Your task to perform on an android device: move a message to another label in the gmail app Image 0: 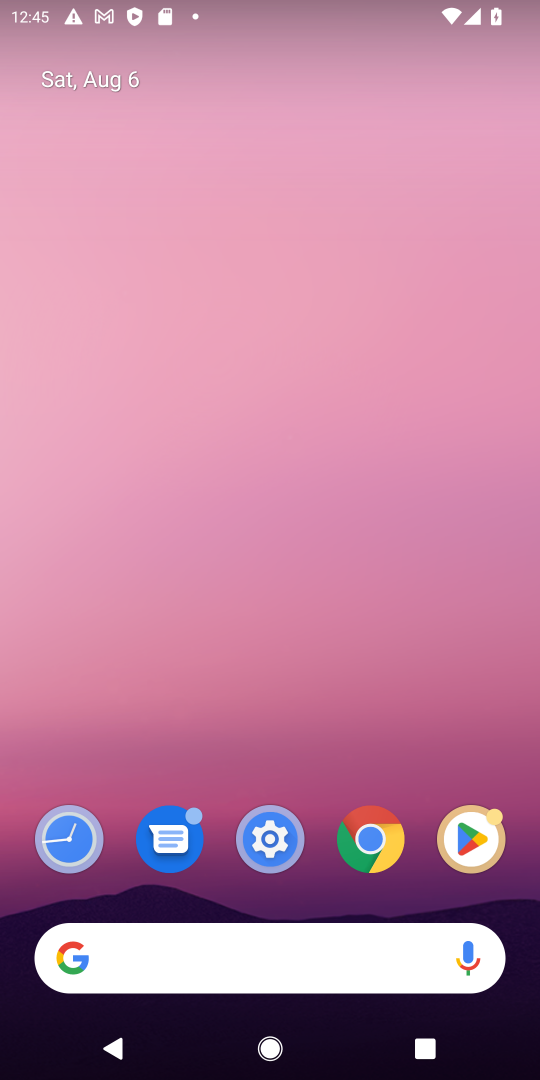
Step 0: drag from (386, 1024) to (399, 338)
Your task to perform on an android device: move a message to another label in the gmail app Image 1: 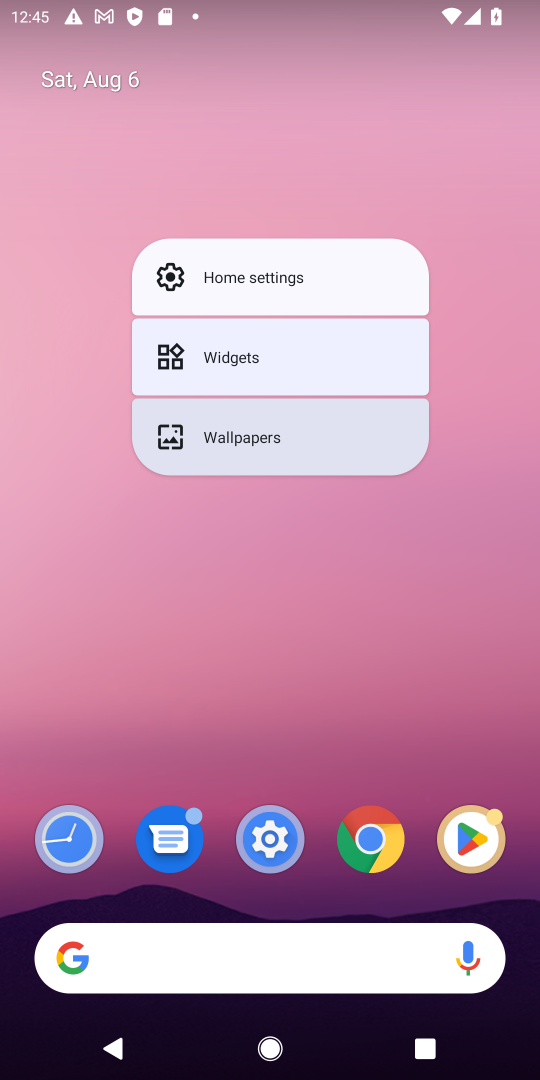
Step 1: drag from (110, 979) to (251, 237)
Your task to perform on an android device: move a message to another label in the gmail app Image 2: 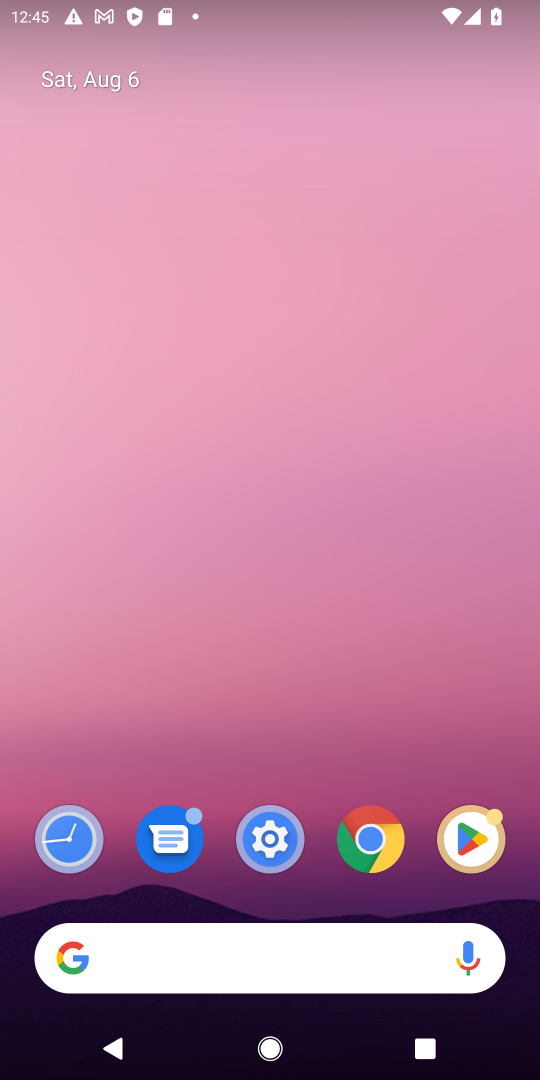
Step 2: drag from (47, 1000) to (299, 202)
Your task to perform on an android device: move a message to another label in the gmail app Image 3: 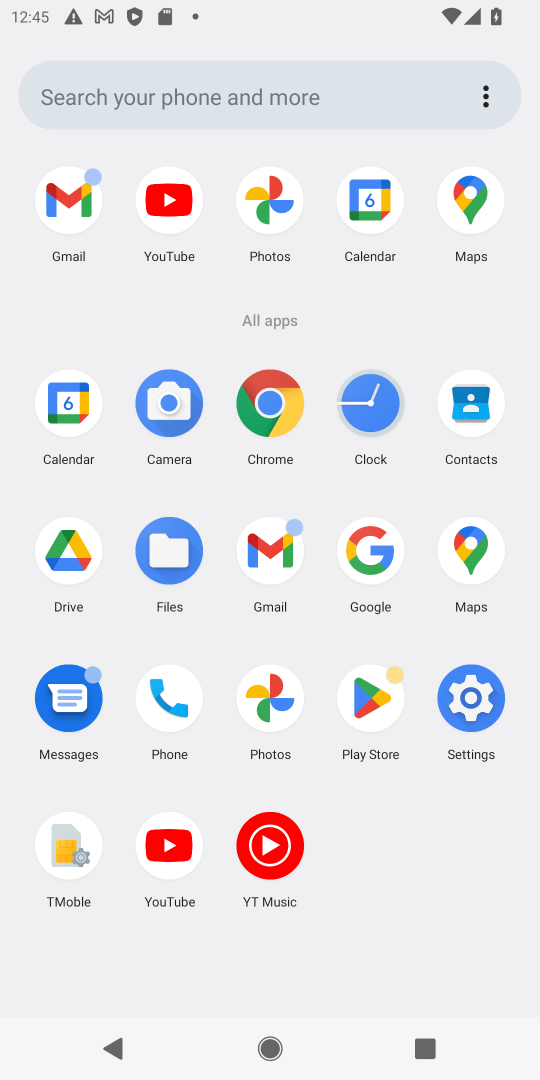
Step 3: click (290, 547)
Your task to perform on an android device: move a message to another label in the gmail app Image 4: 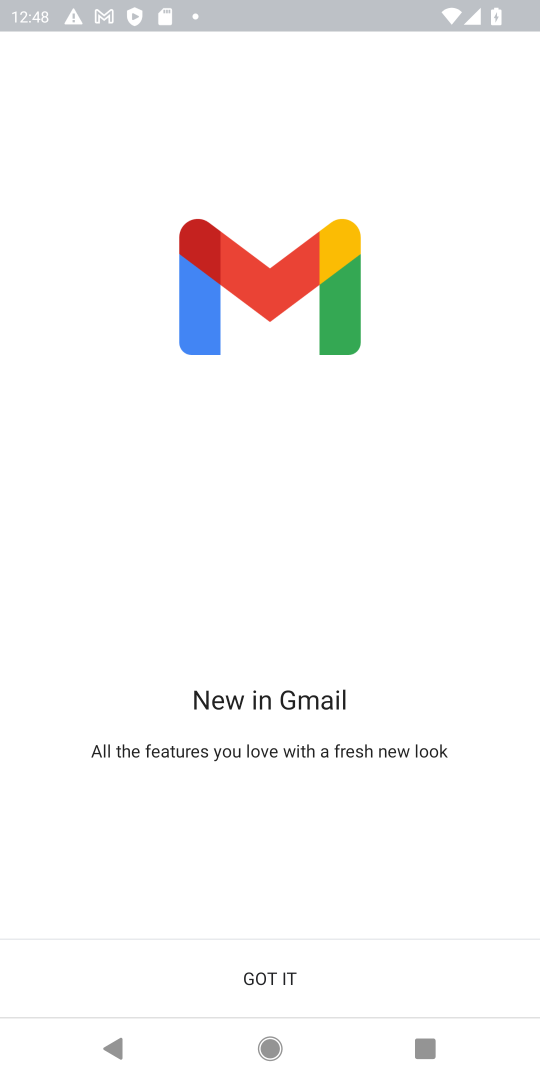
Step 4: click (188, 985)
Your task to perform on an android device: move a message to another label in the gmail app Image 5: 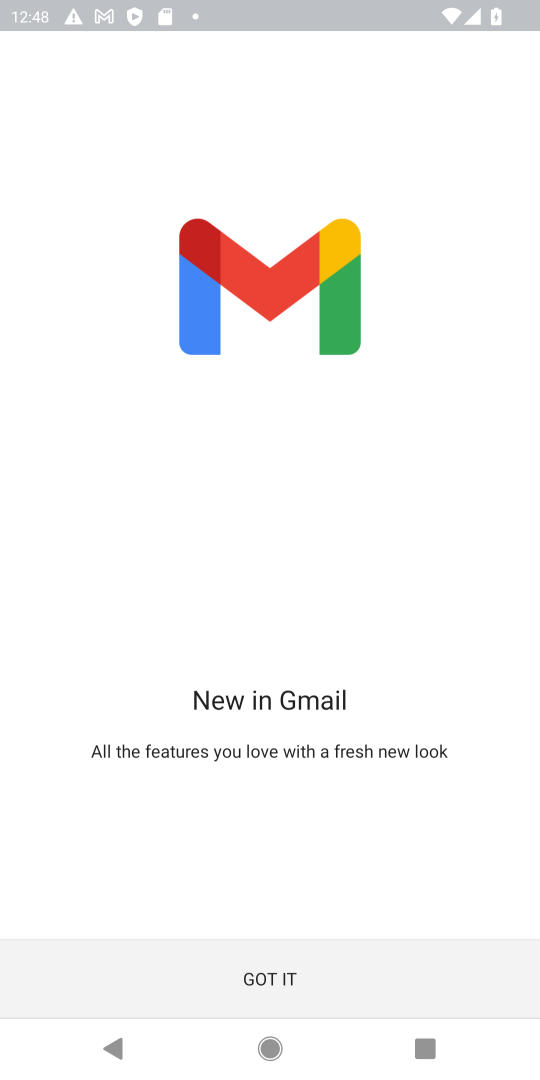
Step 5: click (236, 979)
Your task to perform on an android device: move a message to another label in the gmail app Image 6: 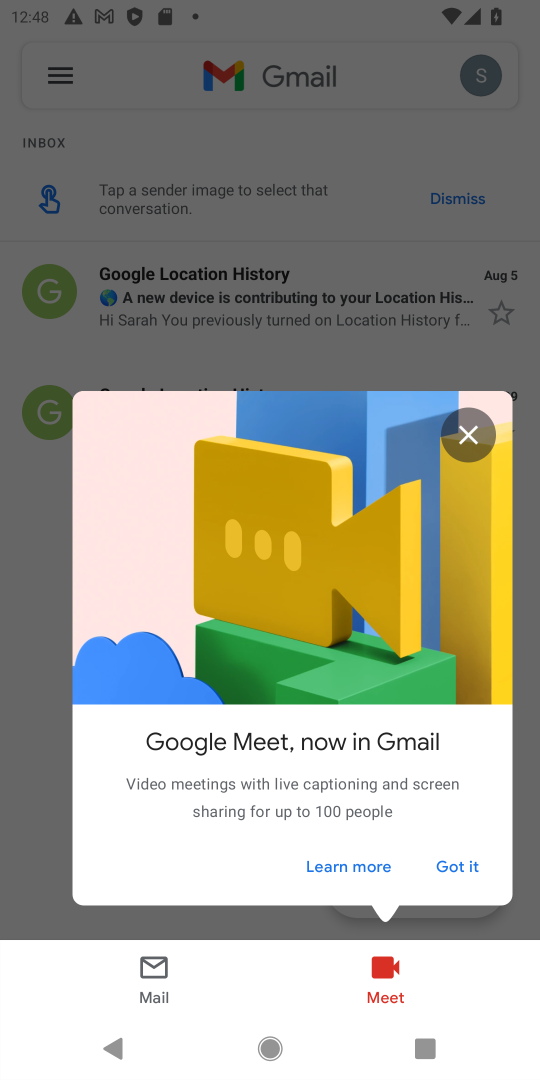
Step 6: click (349, 277)
Your task to perform on an android device: move a message to another label in the gmail app Image 7: 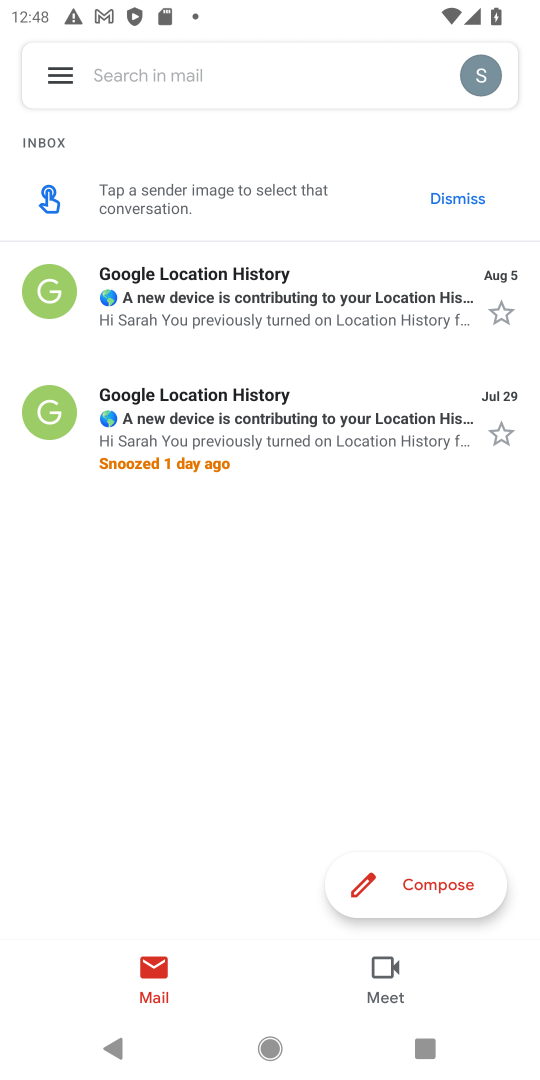
Step 7: click (491, 439)
Your task to perform on an android device: move a message to another label in the gmail app Image 8: 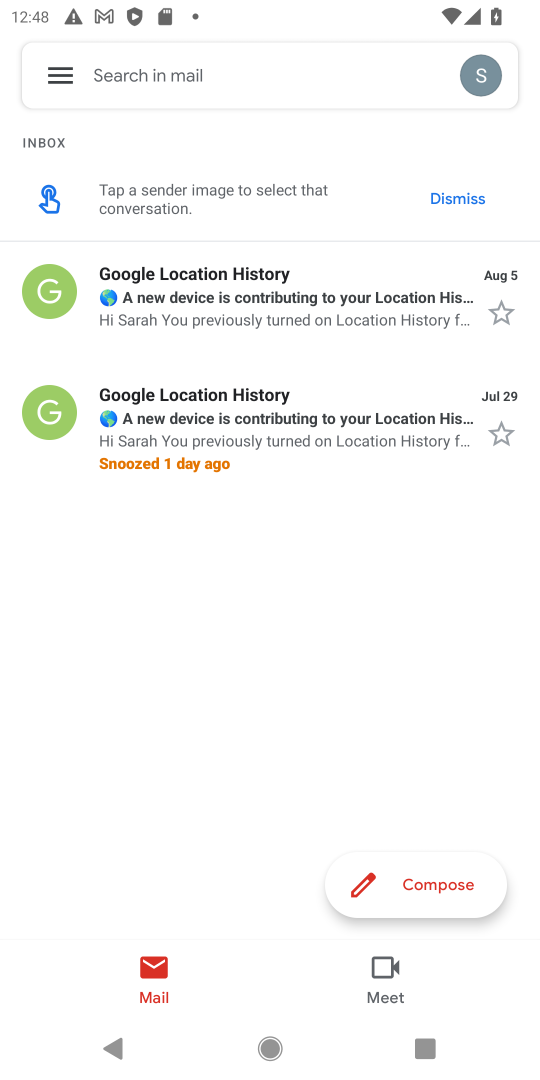
Step 8: click (320, 296)
Your task to perform on an android device: move a message to another label in the gmail app Image 9: 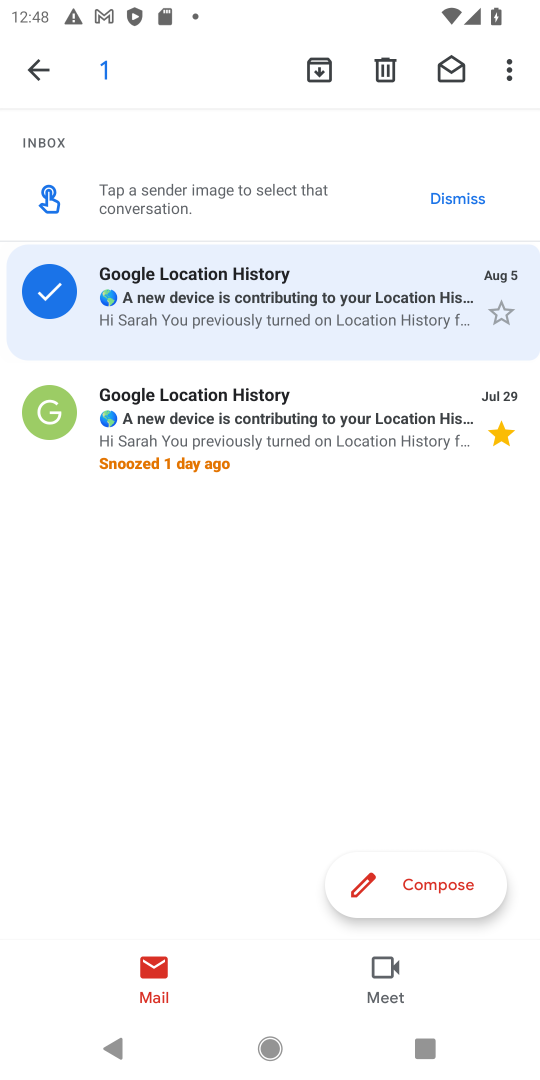
Step 9: click (479, 75)
Your task to perform on an android device: move a message to another label in the gmail app Image 10: 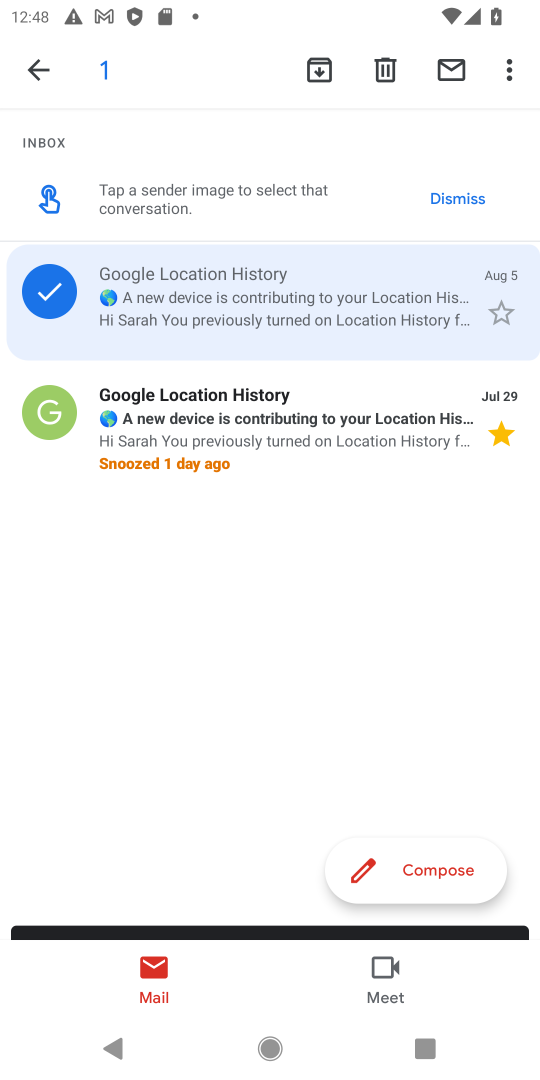
Step 10: click (496, 75)
Your task to perform on an android device: move a message to another label in the gmail app Image 11: 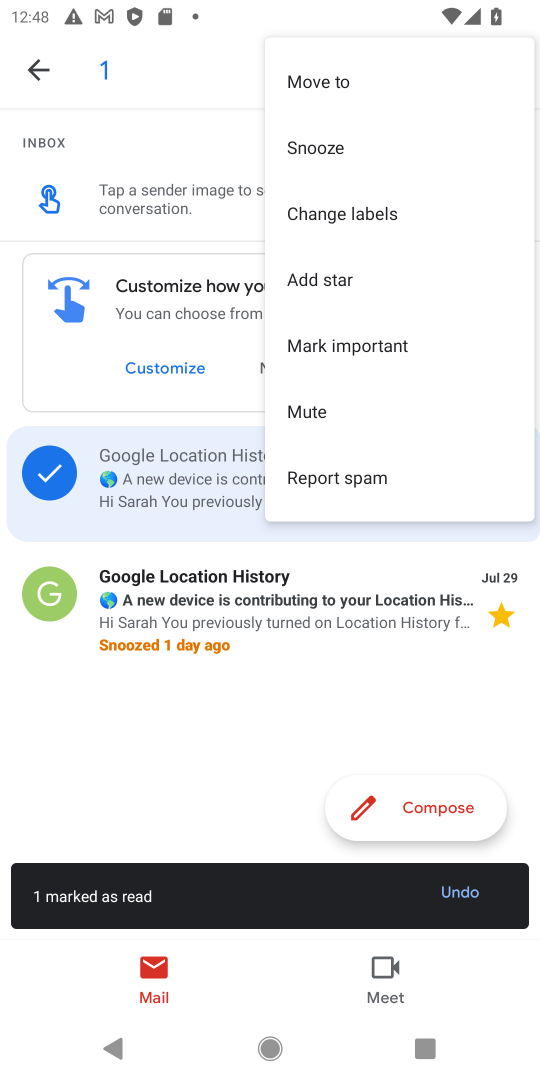
Step 11: click (418, 200)
Your task to perform on an android device: move a message to another label in the gmail app Image 12: 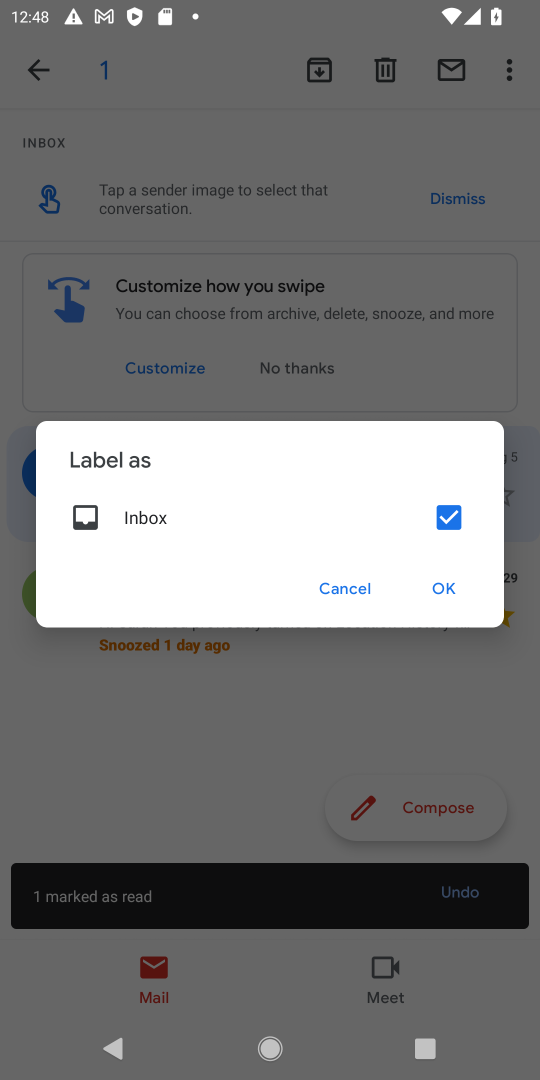
Step 12: click (443, 583)
Your task to perform on an android device: move a message to another label in the gmail app Image 13: 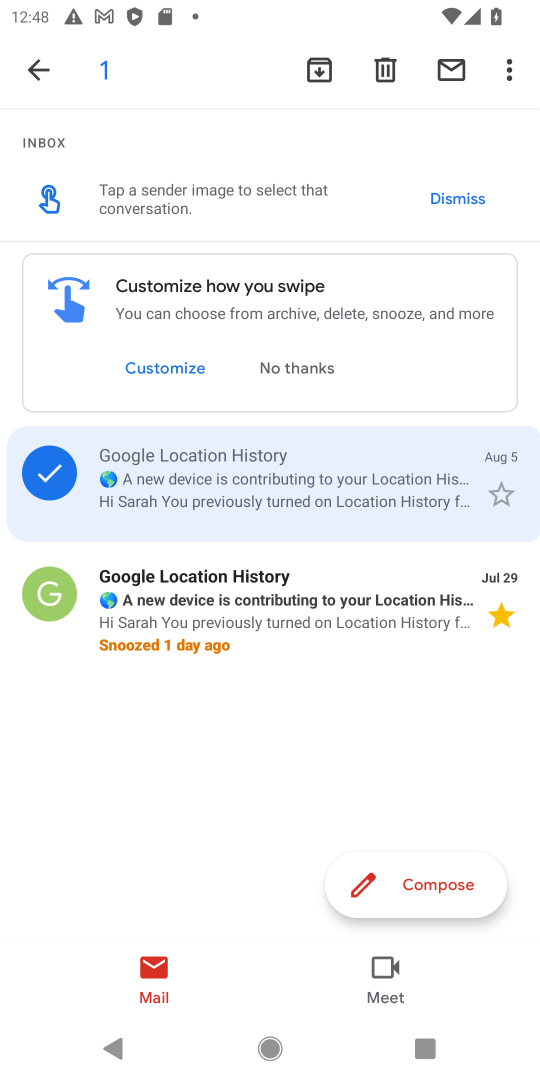
Step 13: task complete